Your task to perform on an android device: Go to notification settings Image 0: 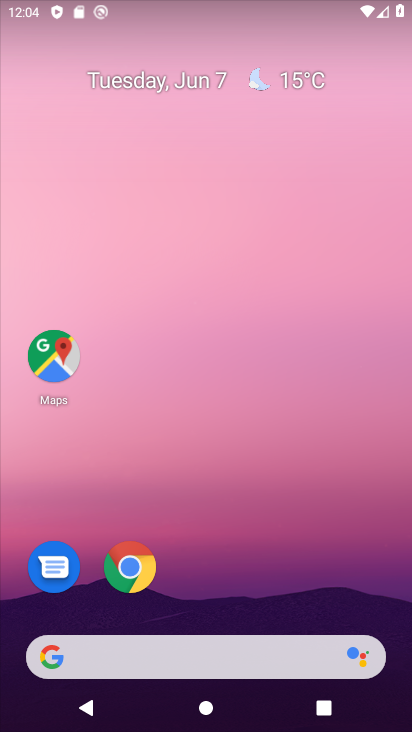
Step 0: drag from (273, 664) to (292, 153)
Your task to perform on an android device: Go to notification settings Image 1: 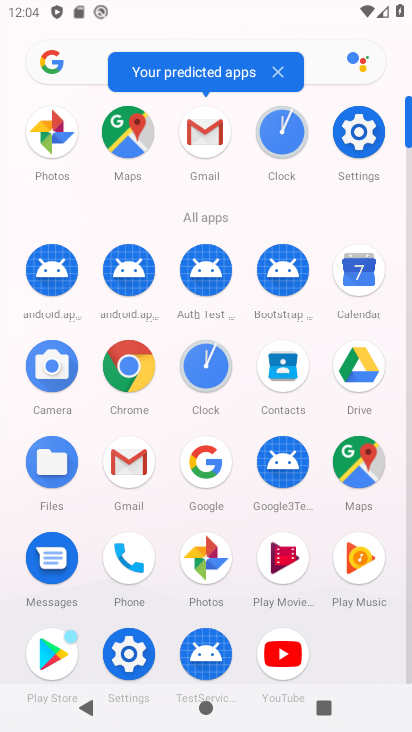
Step 1: click (344, 130)
Your task to perform on an android device: Go to notification settings Image 2: 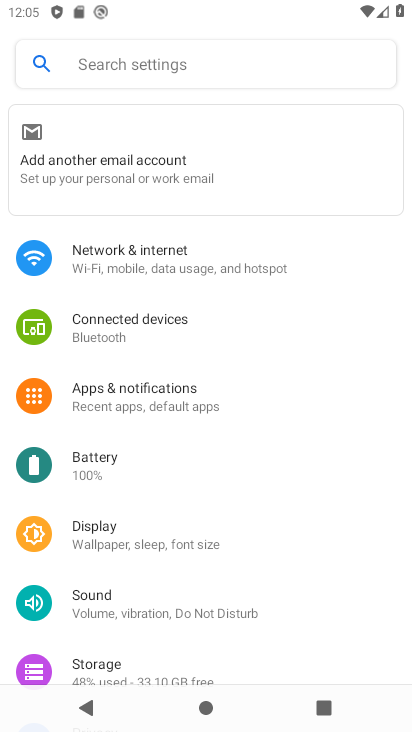
Step 2: click (145, 390)
Your task to perform on an android device: Go to notification settings Image 3: 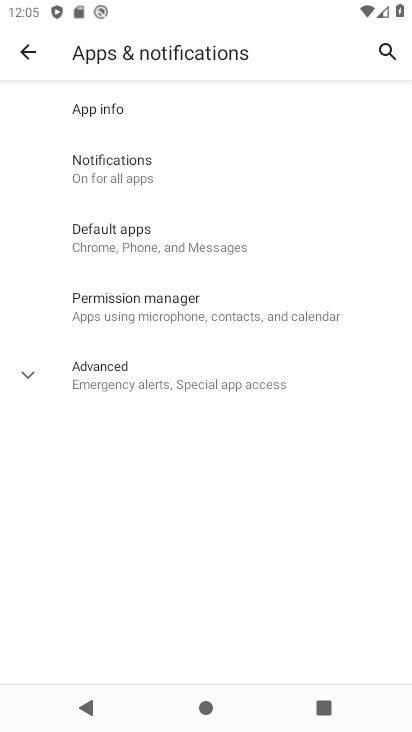
Step 3: click (125, 180)
Your task to perform on an android device: Go to notification settings Image 4: 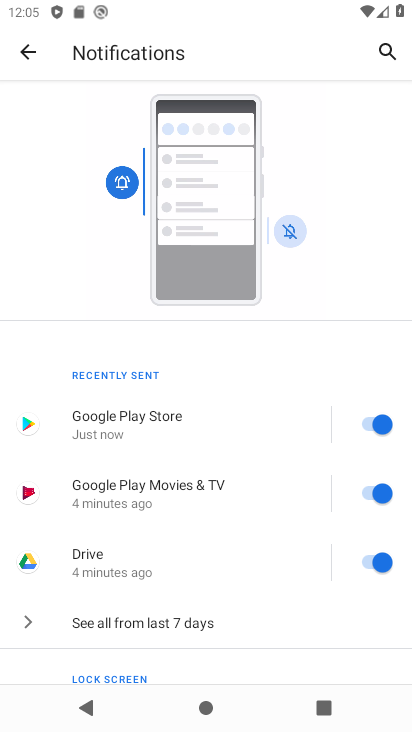
Step 4: task complete